Your task to perform on an android device: open app "Spotify" Image 0: 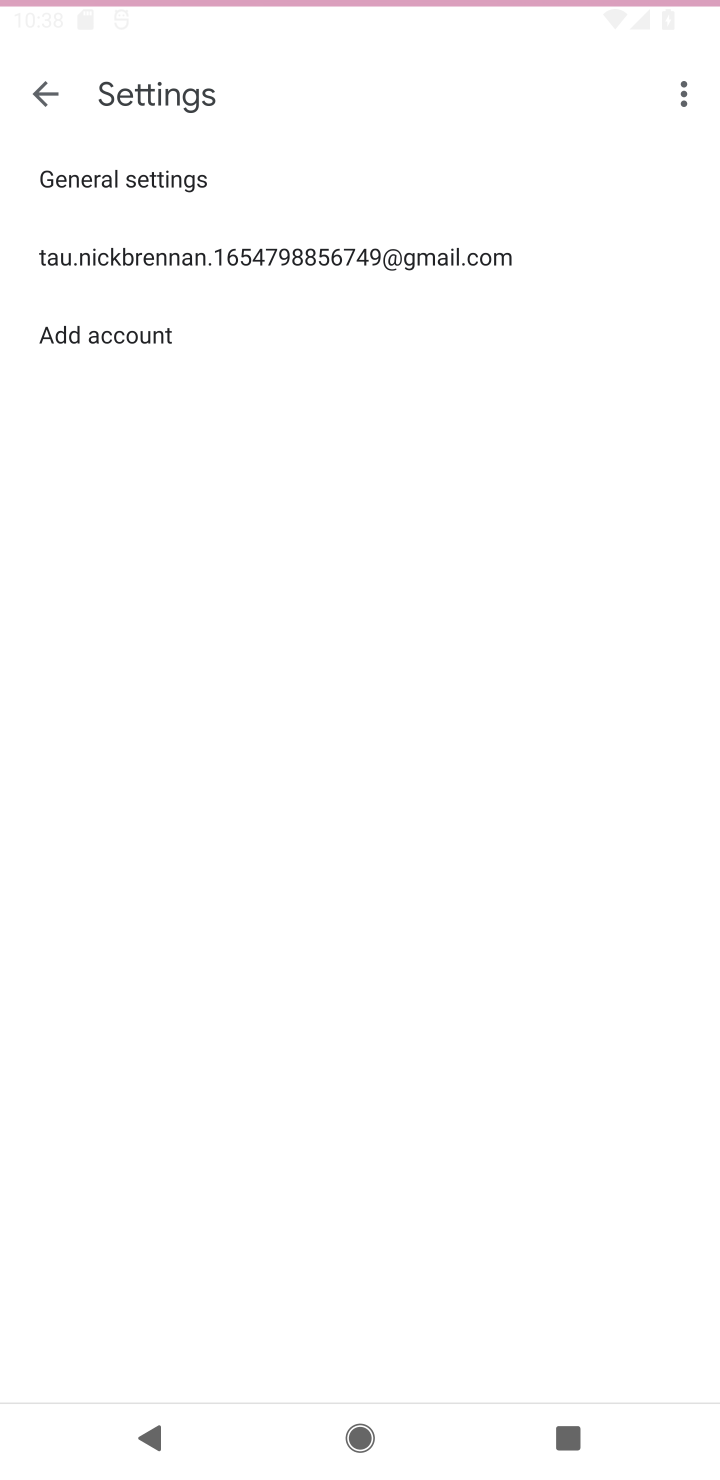
Step 0: click (569, 191)
Your task to perform on an android device: open app "Spotify" Image 1: 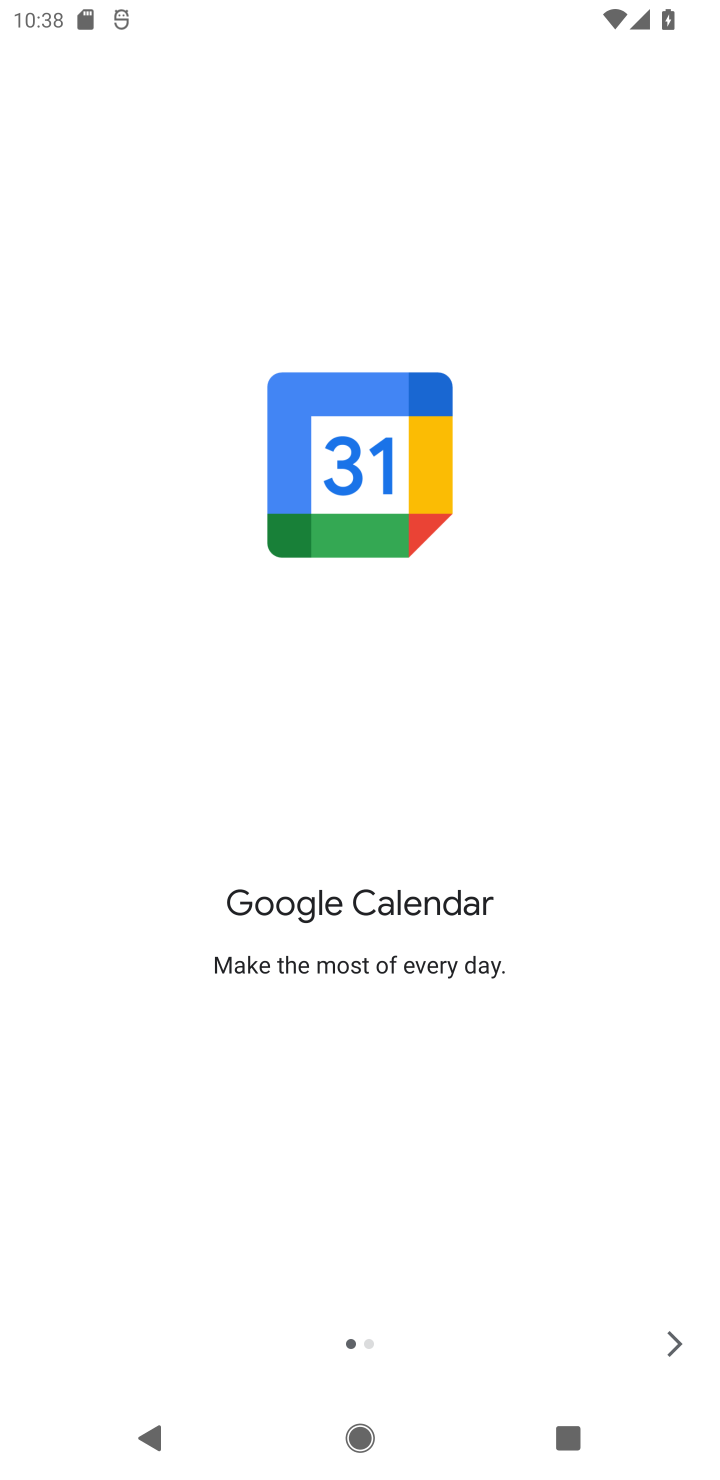
Step 1: press home button
Your task to perform on an android device: open app "Spotify" Image 2: 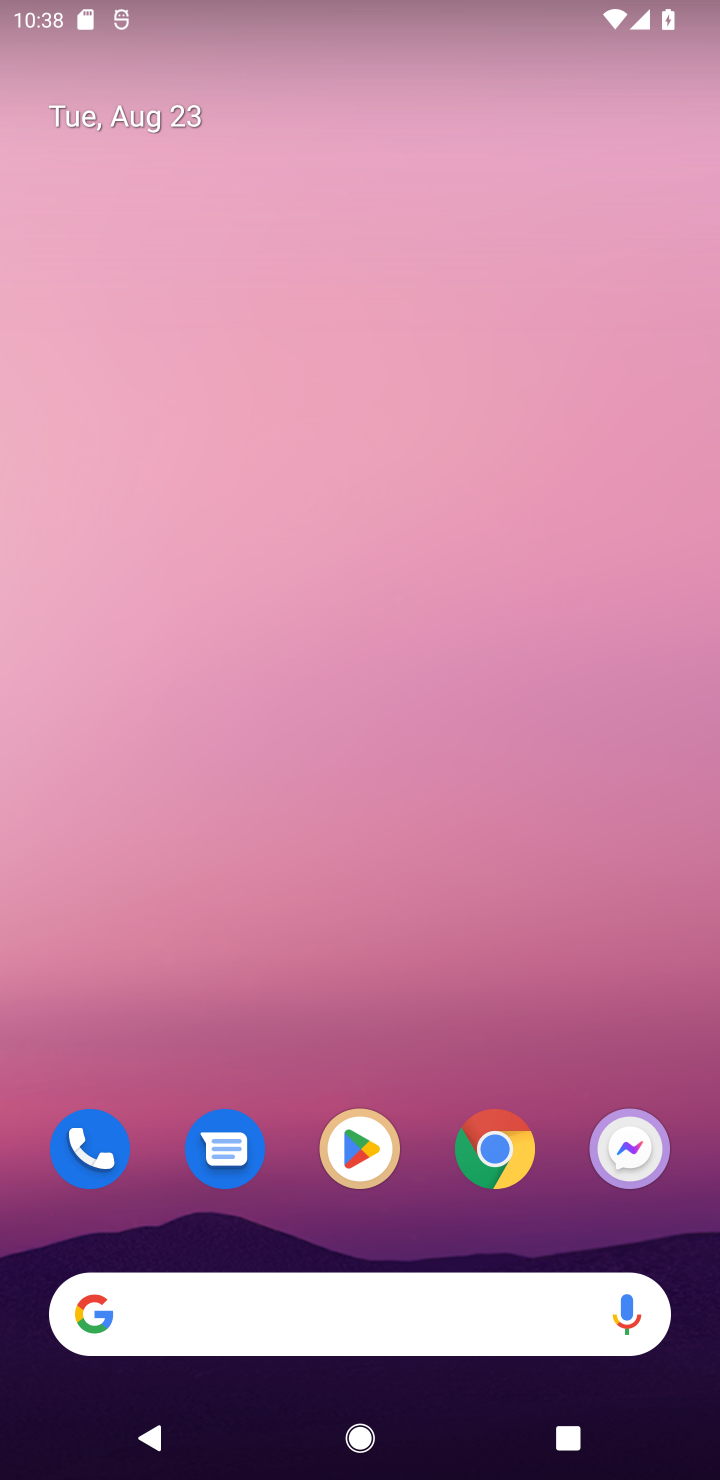
Step 2: click (349, 1162)
Your task to perform on an android device: open app "Spotify" Image 3: 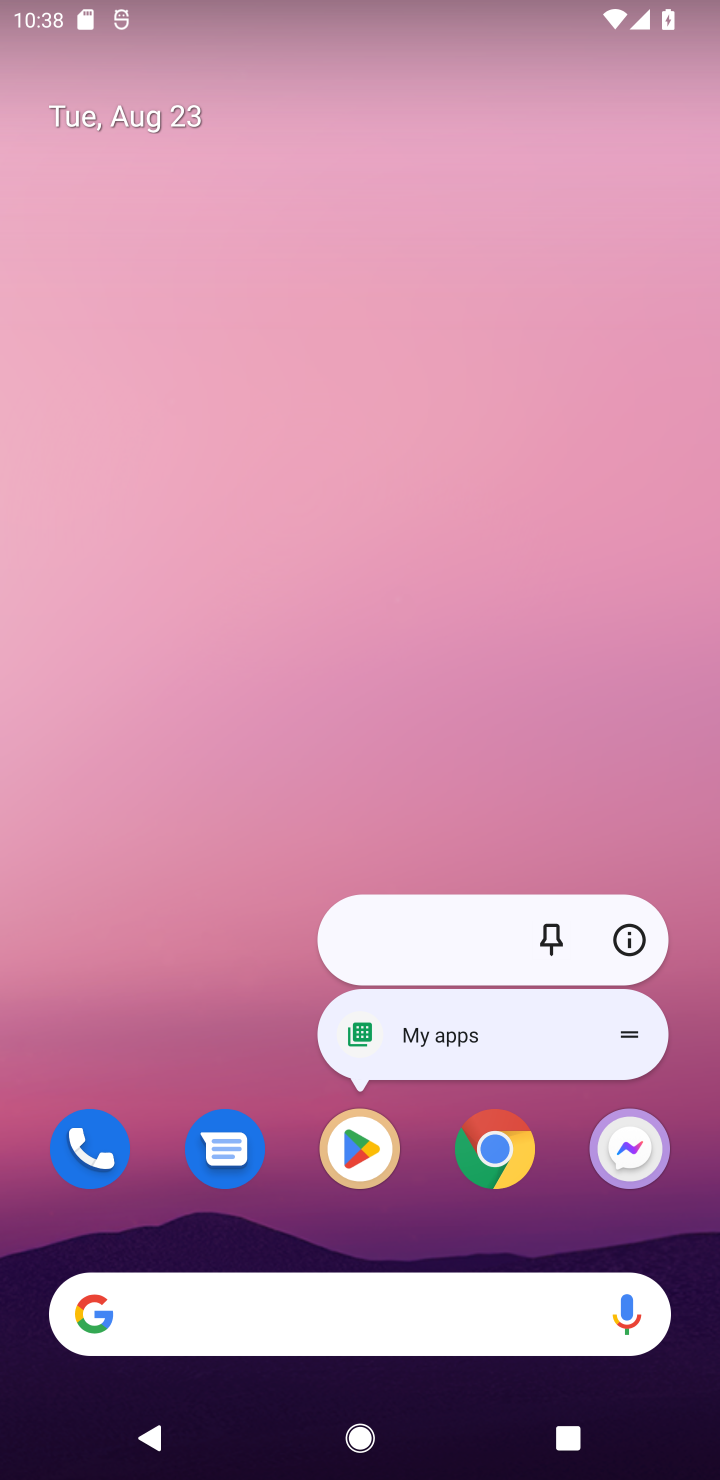
Step 3: click (389, 1155)
Your task to perform on an android device: open app "Spotify" Image 4: 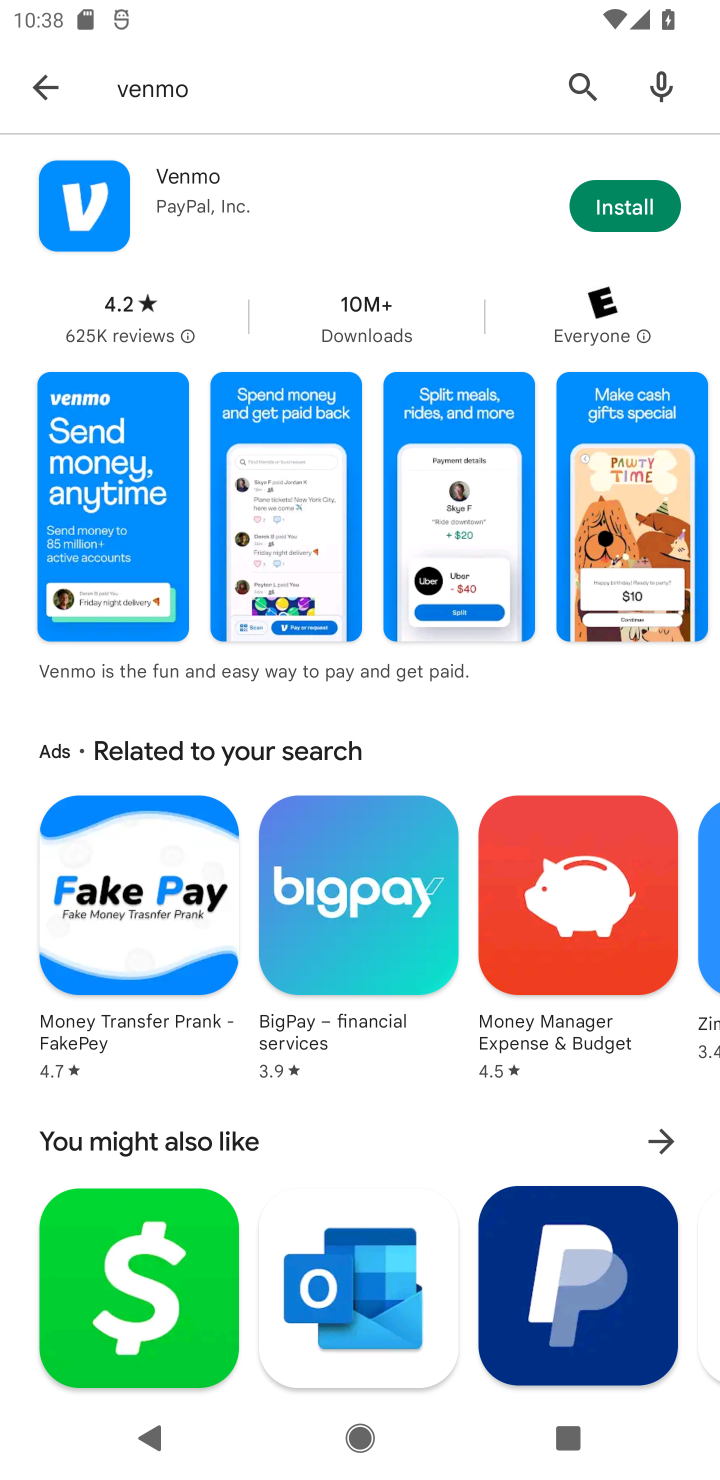
Step 4: click (567, 101)
Your task to perform on an android device: open app "Spotify" Image 5: 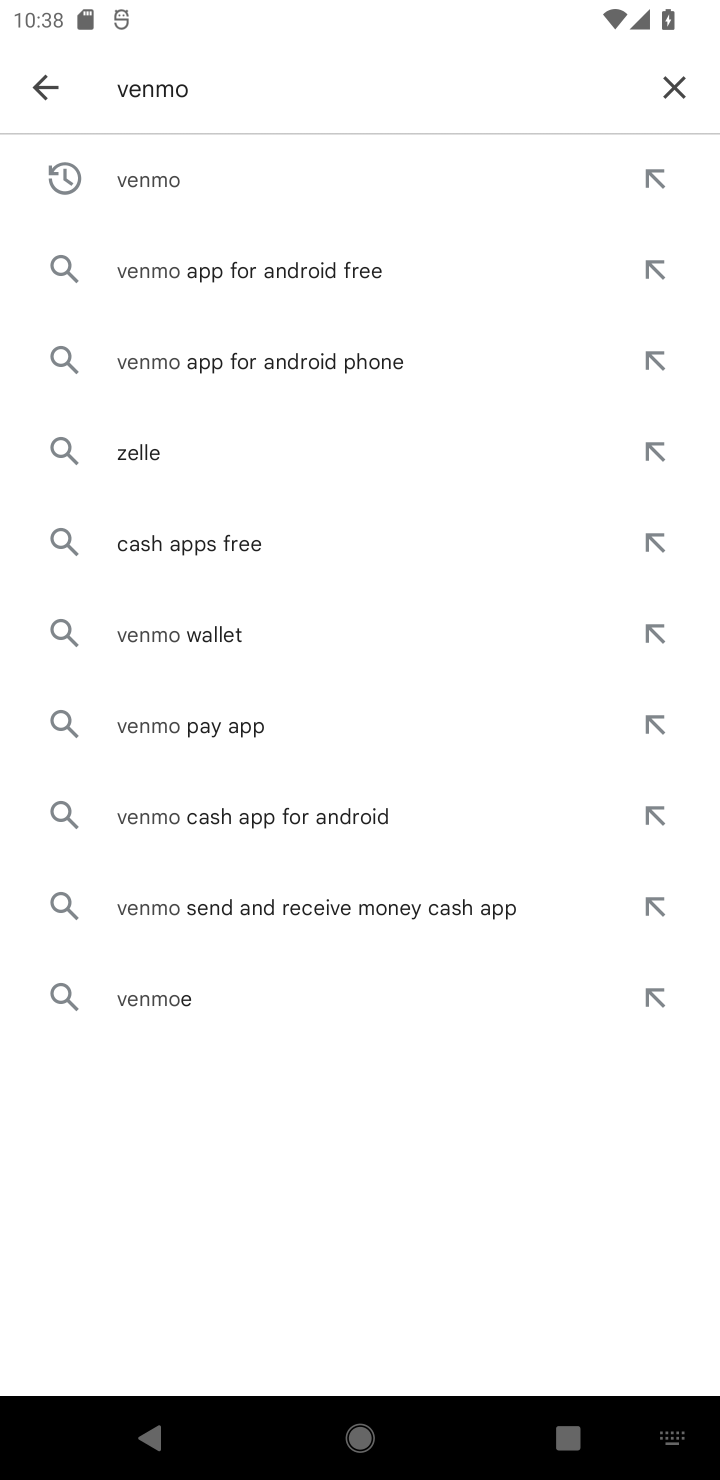
Step 5: click (689, 110)
Your task to perform on an android device: open app "Spotify" Image 6: 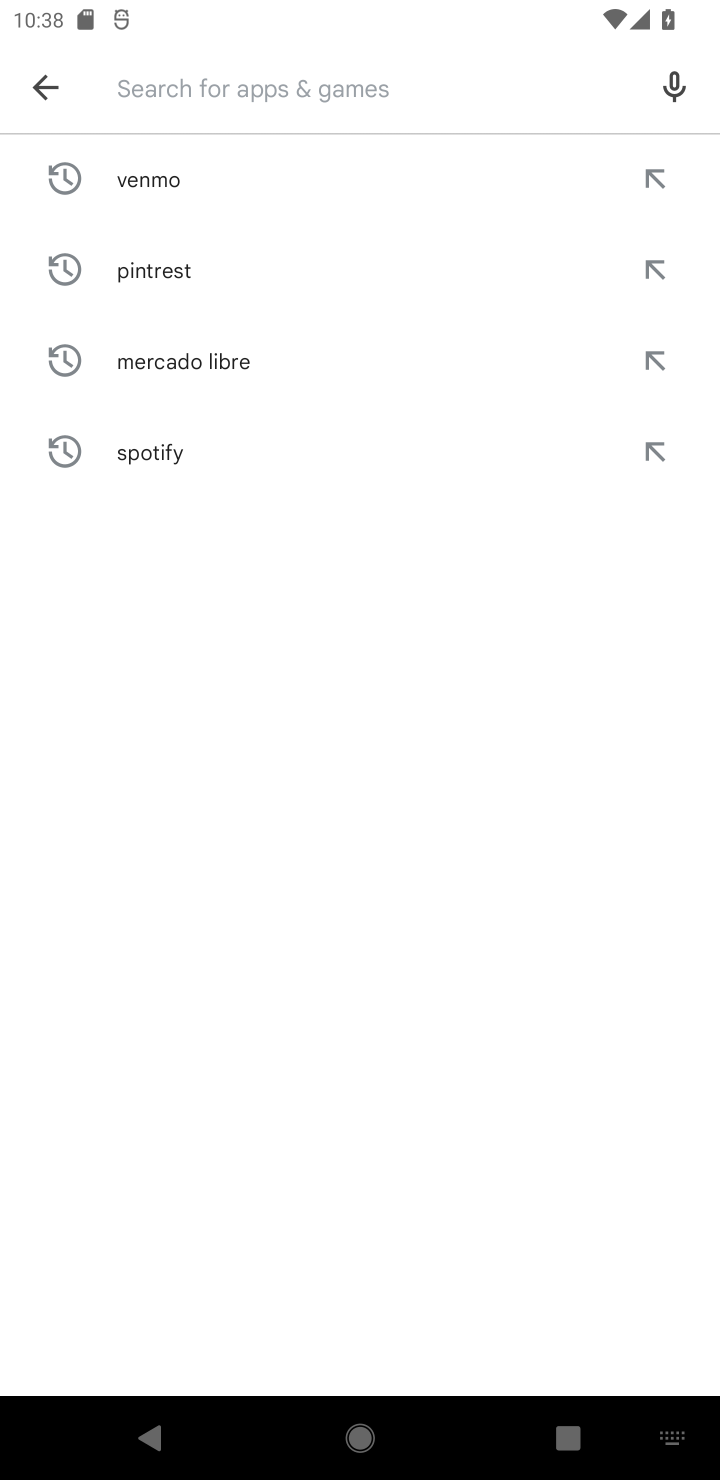
Step 6: click (34, 89)
Your task to perform on an android device: open app "Spotify" Image 7: 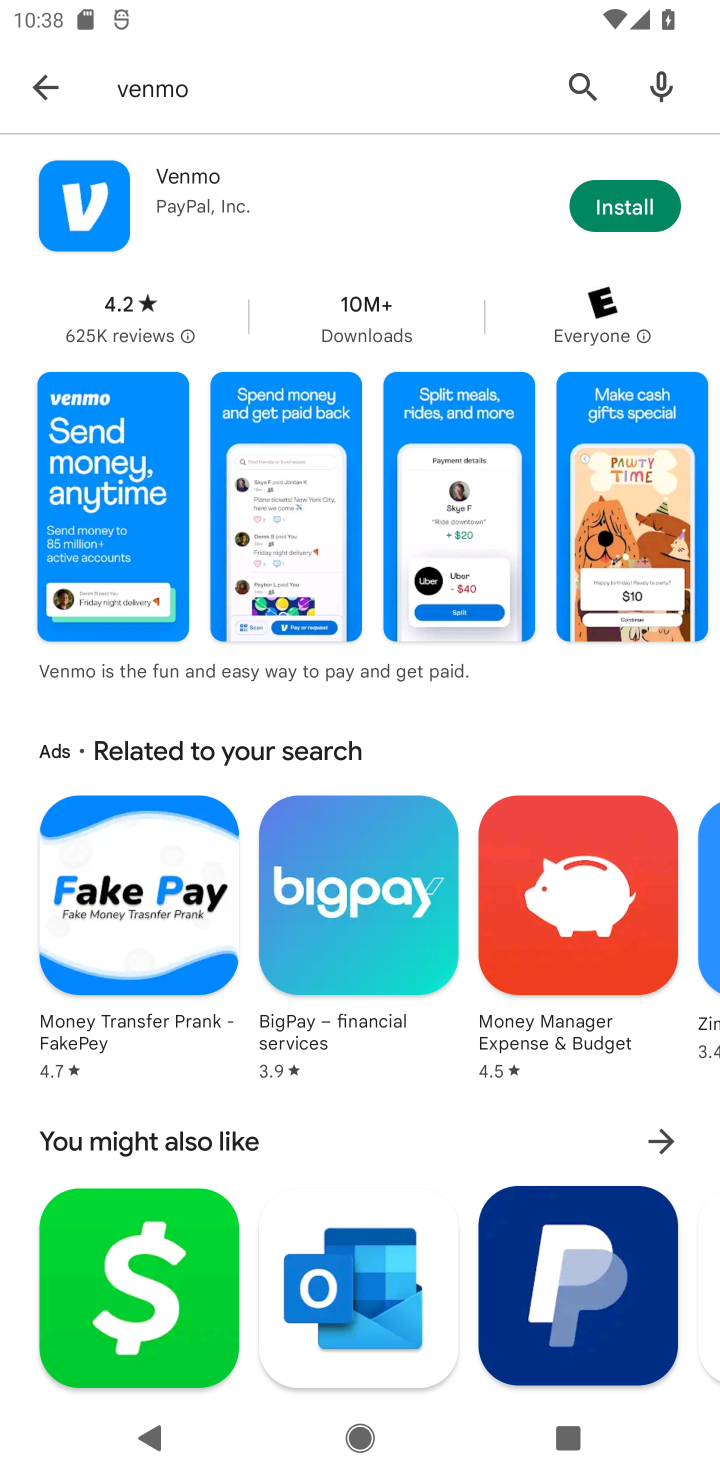
Step 7: click (609, 211)
Your task to perform on an android device: open app "Spotify" Image 8: 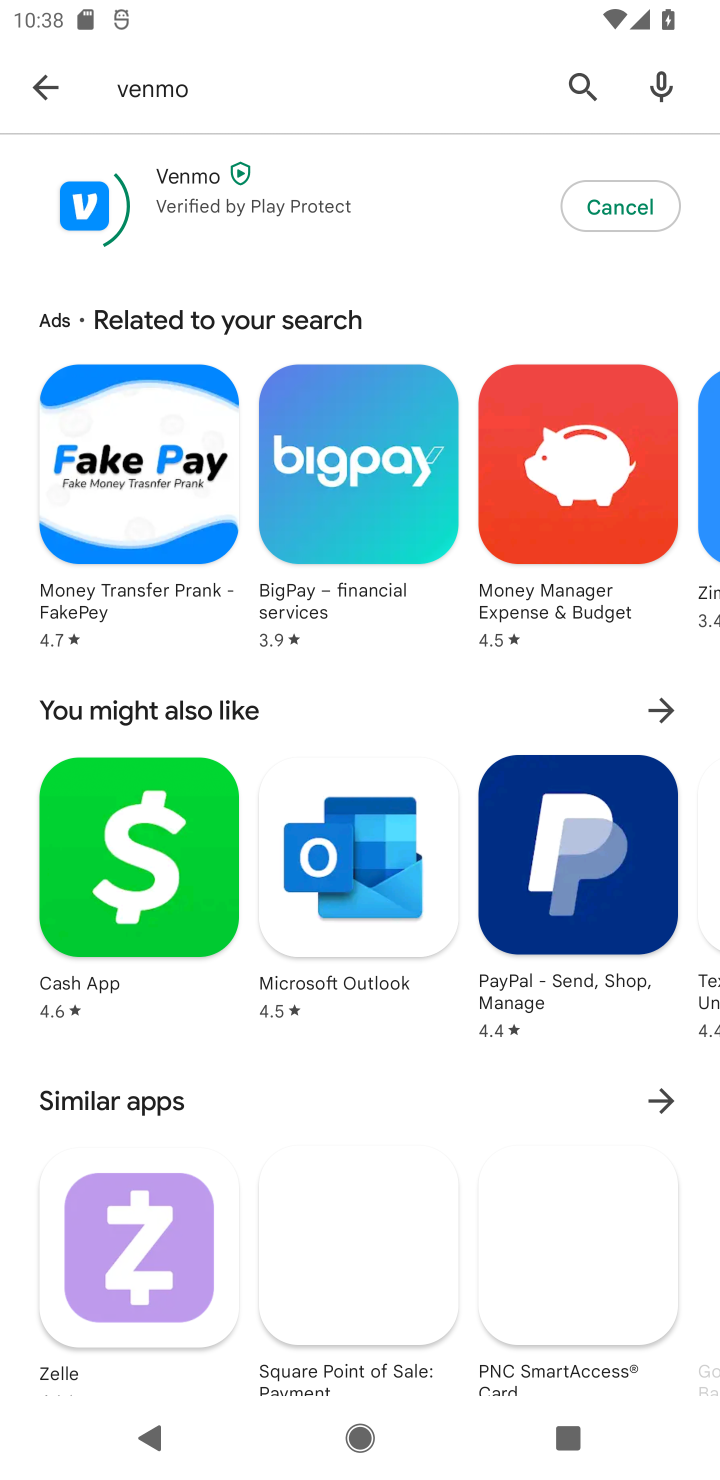
Step 8: task complete